Your task to perform on an android device: open wifi settings Image 0: 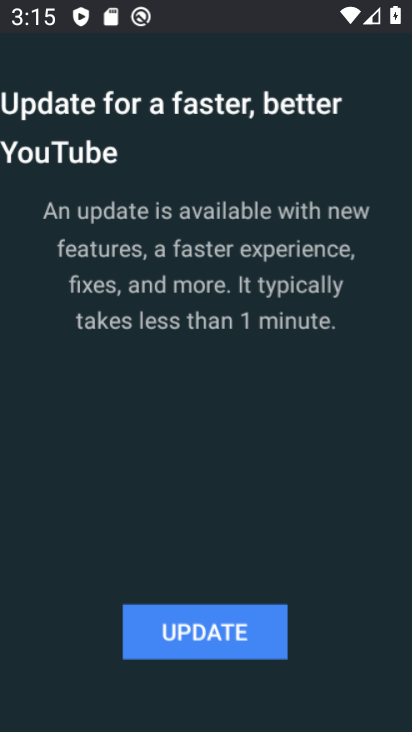
Step 0: drag from (206, 600) to (335, 166)
Your task to perform on an android device: open wifi settings Image 1: 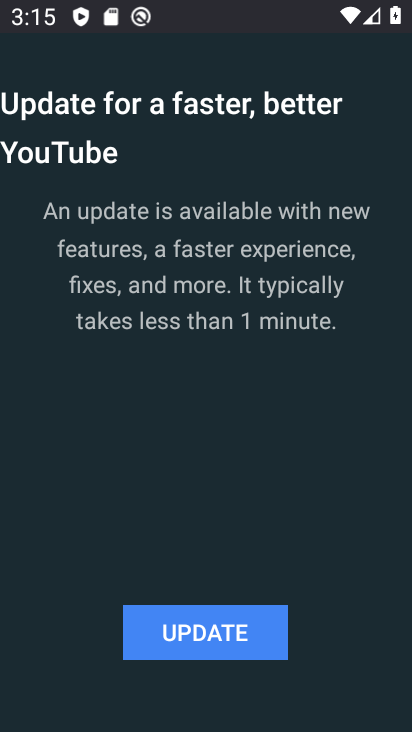
Step 1: press home button
Your task to perform on an android device: open wifi settings Image 2: 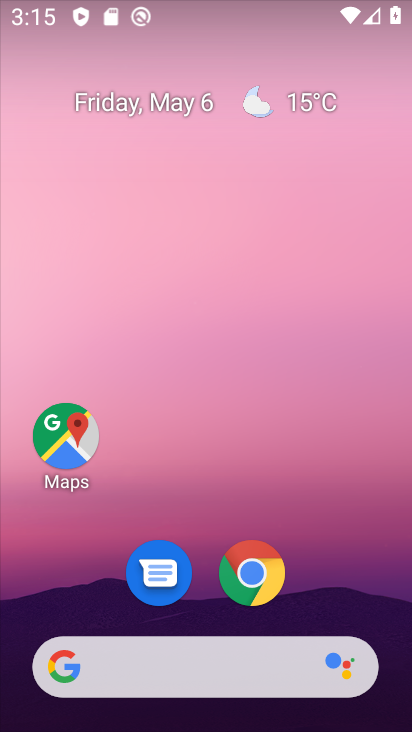
Step 2: drag from (209, 613) to (279, 266)
Your task to perform on an android device: open wifi settings Image 3: 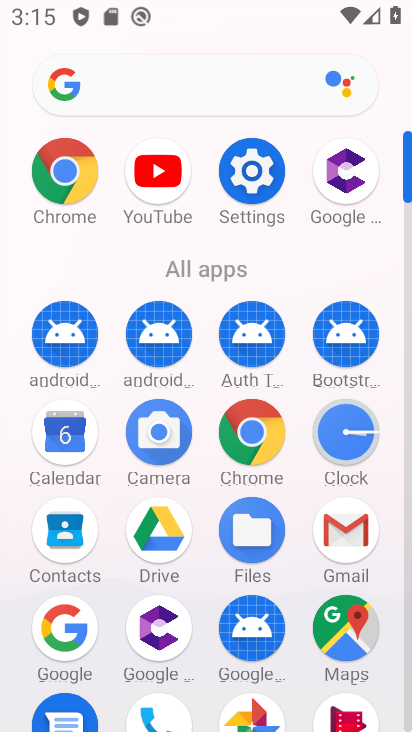
Step 3: click (255, 190)
Your task to perform on an android device: open wifi settings Image 4: 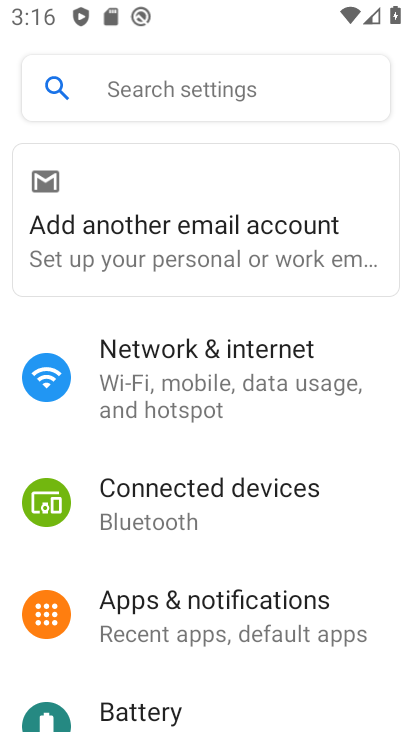
Step 4: click (214, 355)
Your task to perform on an android device: open wifi settings Image 5: 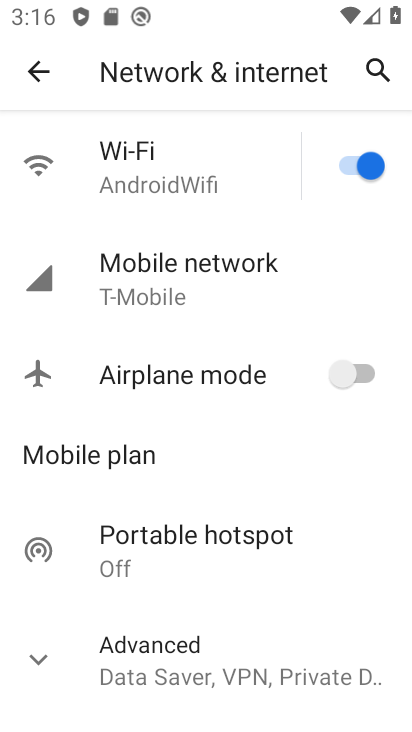
Step 5: click (250, 178)
Your task to perform on an android device: open wifi settings Image 6: 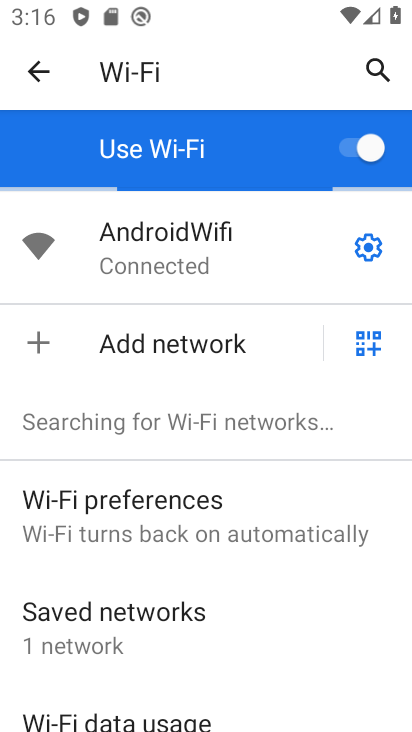
Step 6: click (372, 250)
Your task to perform on an android device: open wifi settings Image 7: 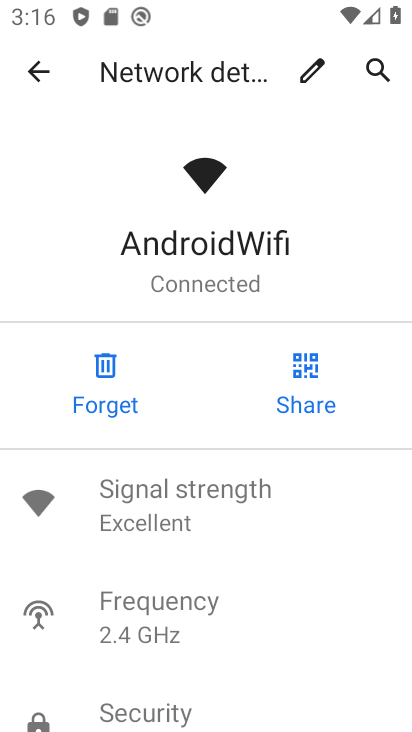
Step 7: task complete